Your task to perform on an android device: turn smart compose on in the gmail app Image 0: 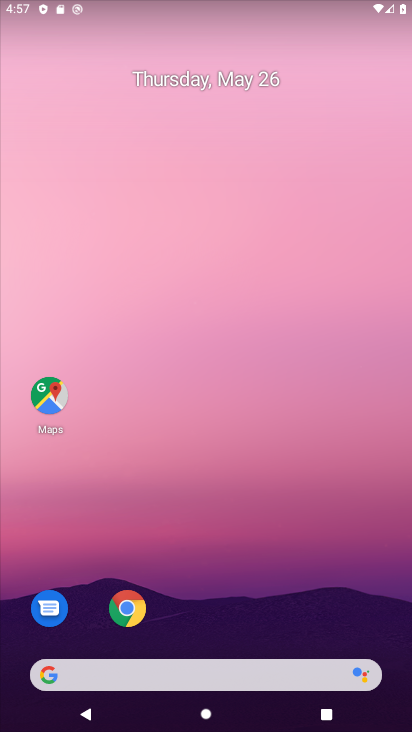
Step 0: drag from (74, 643) to (167, 122)
Your task to perform on an android device: turn smart compose on in the gmail app Image 1: 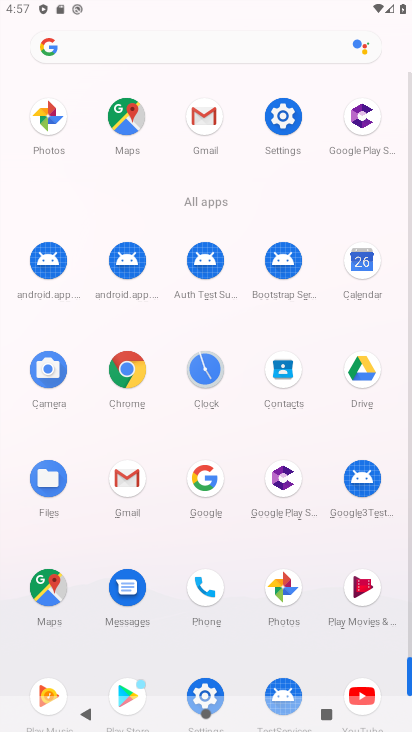
Step 1: drag from (156, 654) to (200, 419)
Your task to perform on an android device: turn smart compose on in the gmail app Image 2: 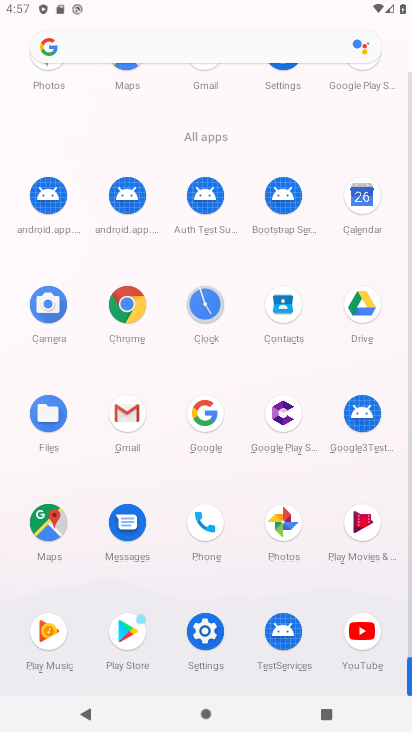
Step 2: click (123, 418)
Your task to perform on an android device: turn smart compose on in the gmail app Image 3: 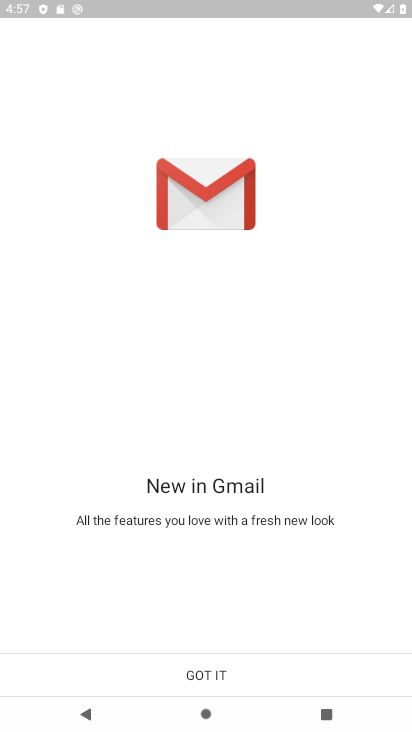
Step 3: click (214, 678)
Your task to perform on an android device: turn smart compose on in the gmail app Image 4: 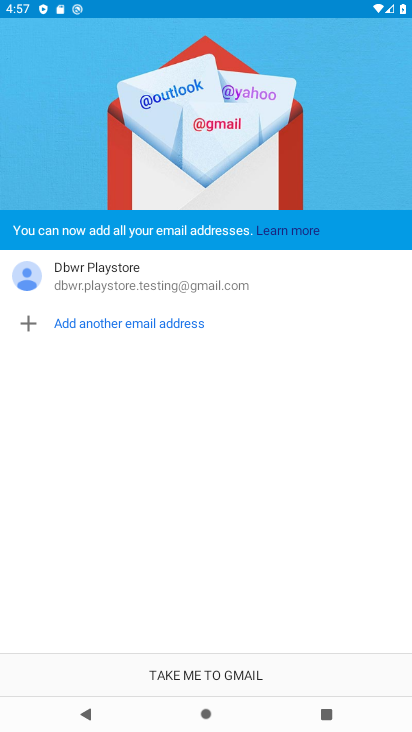
Step 4: click (226, 674)
Your task to perform on an android device: turn smart compose on in the gmail app Image 5: 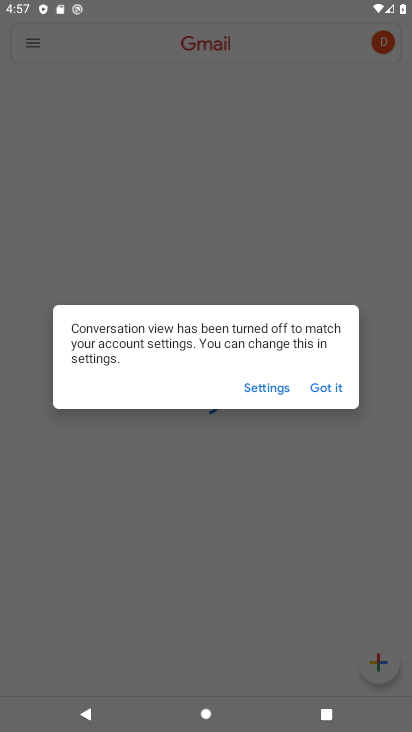
Step 5: click (332, 395)
Your task to perform on an android device: turn smart compose on in the gmail app Image 6: 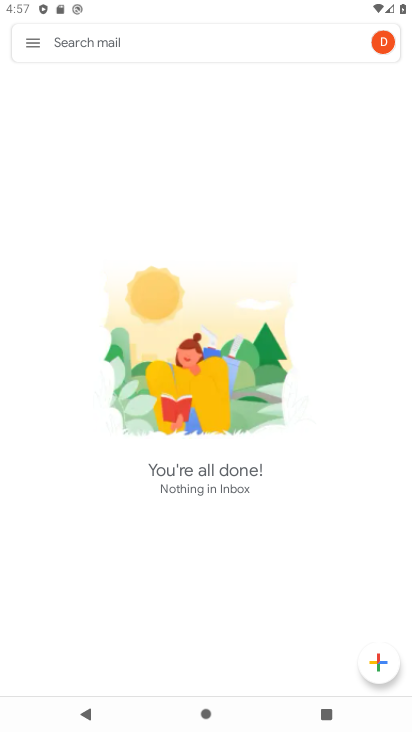
Step 6: click (32, 45)
Your task to perform on an android device: turn smart compose on in the gmail app Image 7: 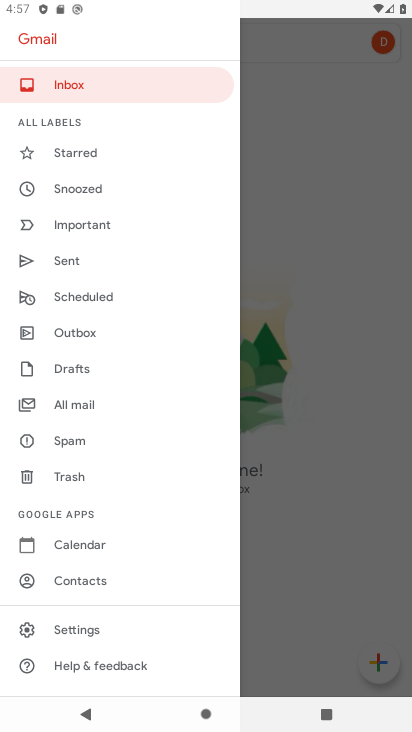
Step 7: drag from (120, 556) to (158, 242)
Your task to perform on an android device: turn smart compose on in the gmail app Image 8: 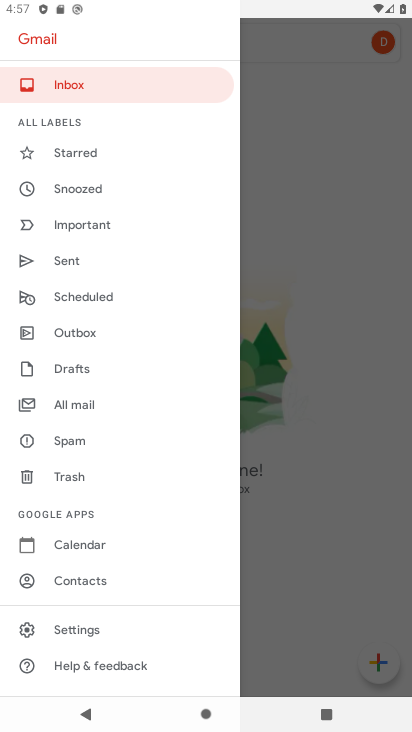
Step 8: click (97, 625)
Your task to perform on an android device: turn smart compose on in the gmail app Image 9: 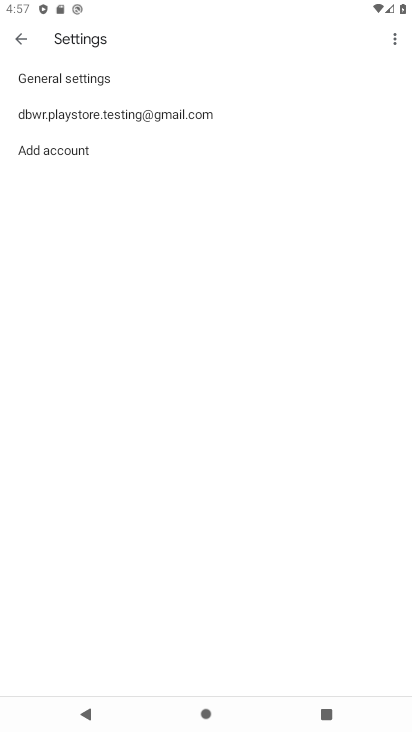
Step 9: click (215, 116)
Your task to perform on an android device: turn smart compose on in the gmail app Image 10: 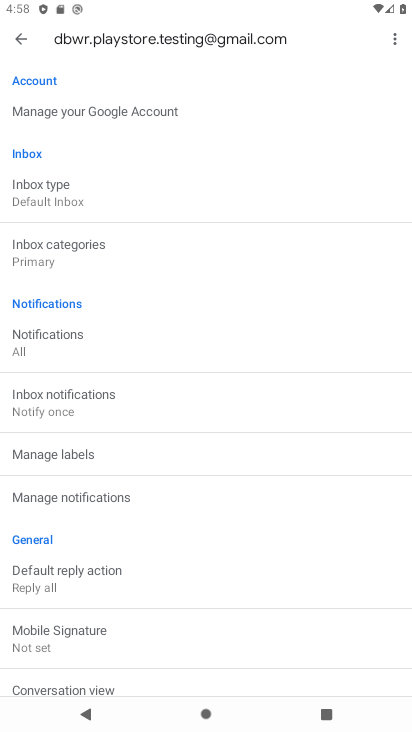
Step 10: task complete